Your task to perform on an android device: show emergency info Image 0: 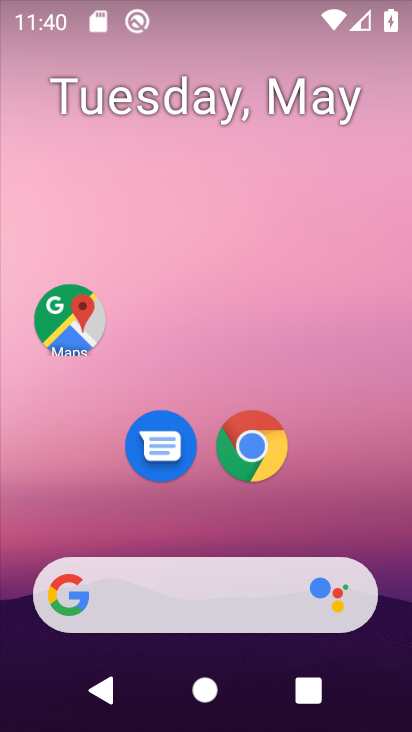
Step 0: drag from (387, 577) to (323, 105)
Your task to perform on an android device: show emergency info Image 1: 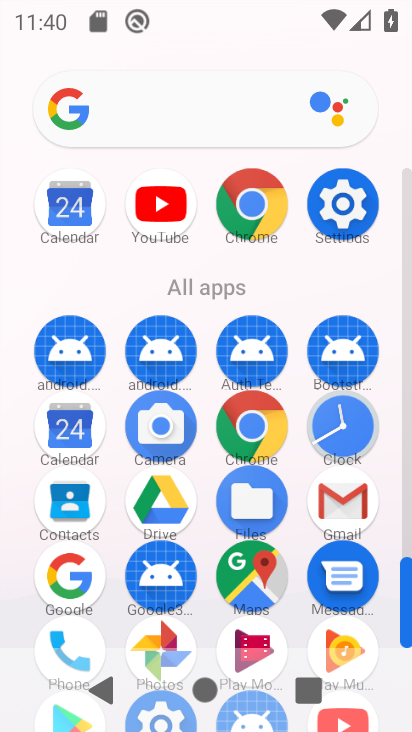
Step 1: click (351, 217)
Your task to perform on an android device: show emergency info Image 2: 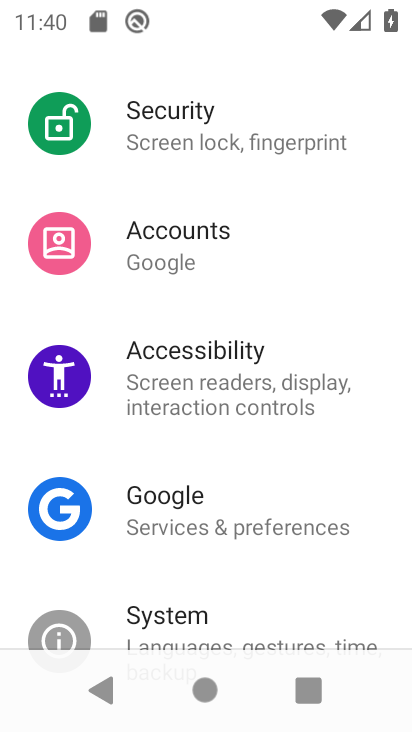
Step 2: drag from (253, 620) to (252, 279)
Your task to perform on an android device: show emergency info Image 3: 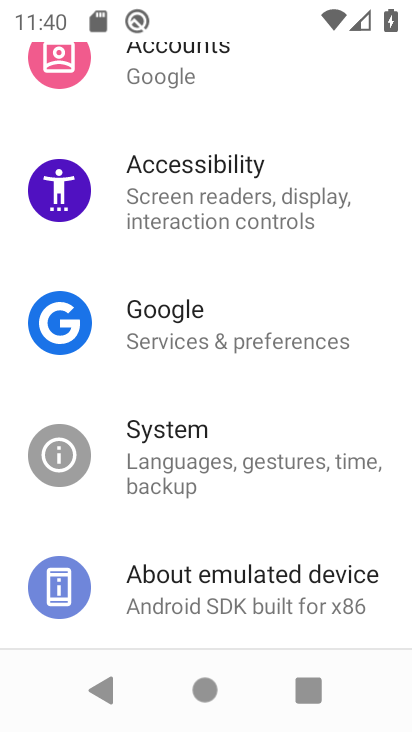
Step 3: click (231, 582)
Your task to perform on an android device: show emergency info Image 4: 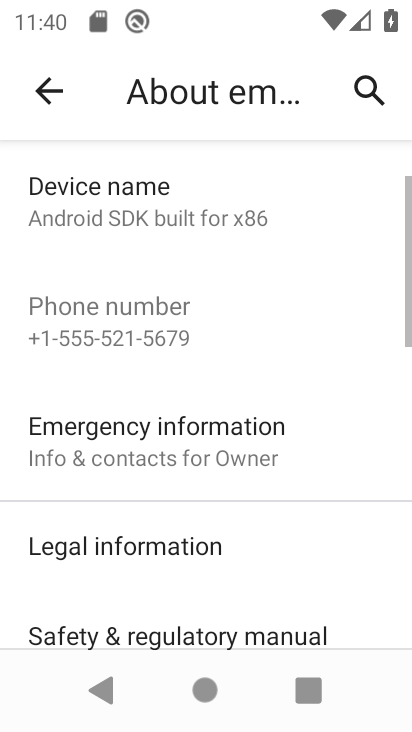
Step 4: click (170, 444)
Your task to perform on an android device: show emergency info Image 5: 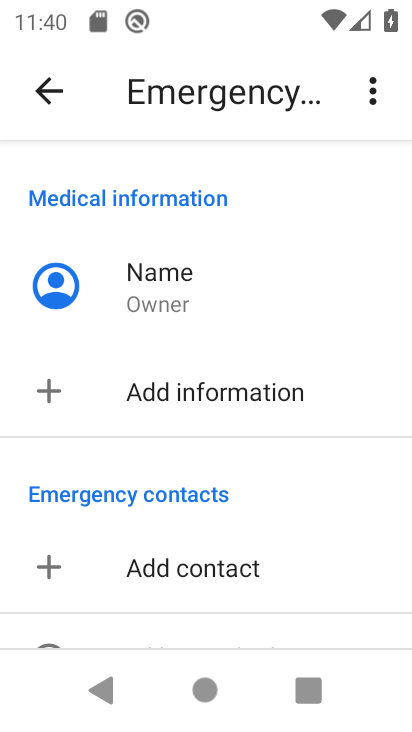
Step 5: task complete